Your task to perform on an android device: add a contact in the contacts app Image 0: 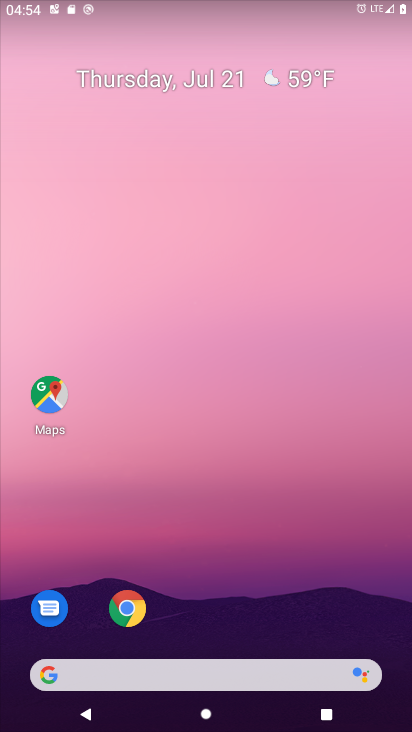
Step 0: drag from (287, 661) to (294, 108)
Your task to perform on an android device: add a contact in the contacts app Image 1: 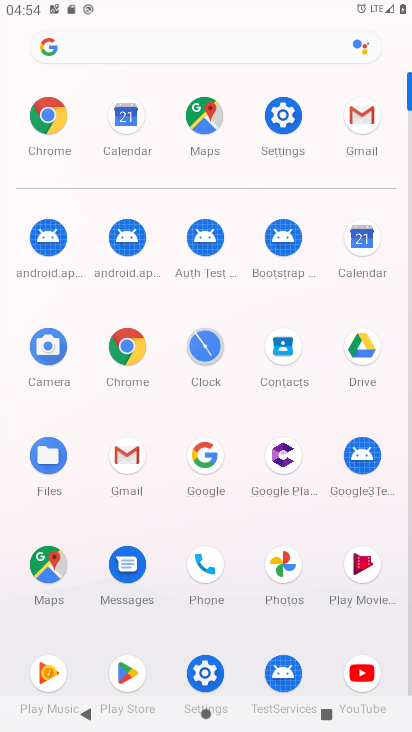
Step 1: click (269, 358)
Your task to perform on an android device: add a contact in the contacts app Image 2: 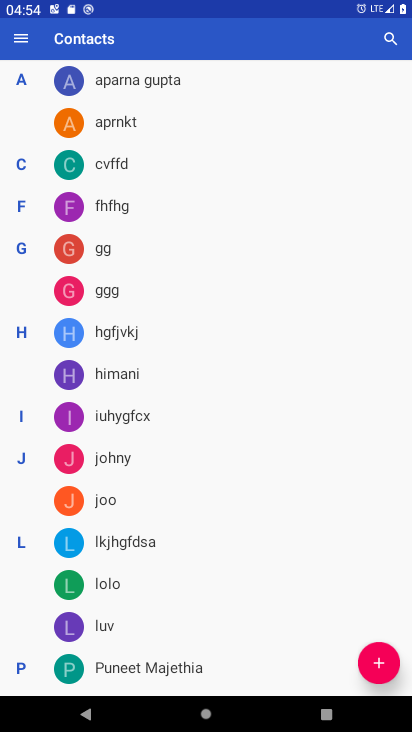
Step 2: click (380, 651)
Your task to perform on an android device: add a contact in the contacts app Image 3: 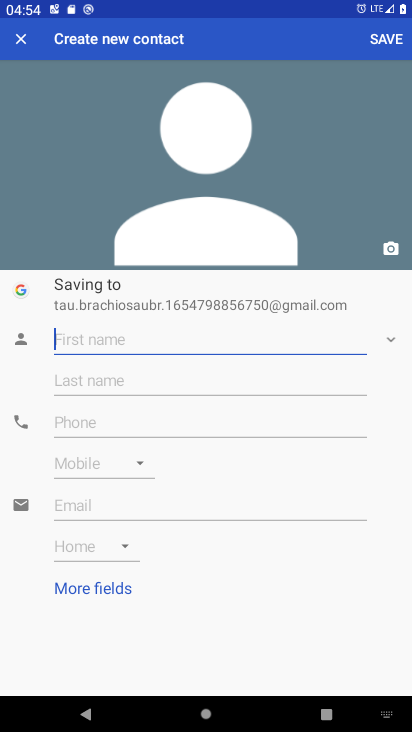
Step 3: type "anuj"
Your task to perform on an android device: add a contact in the contacts app Image 4: 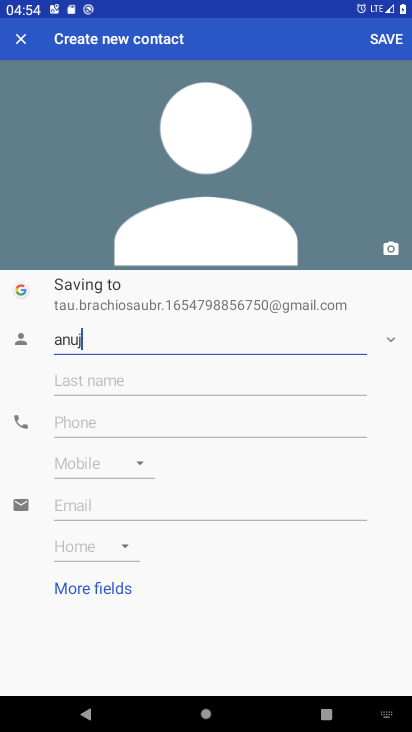
Step 4: click (181, 418)
Your task to perform on an android device: add a contact in the contacts app Image 5: 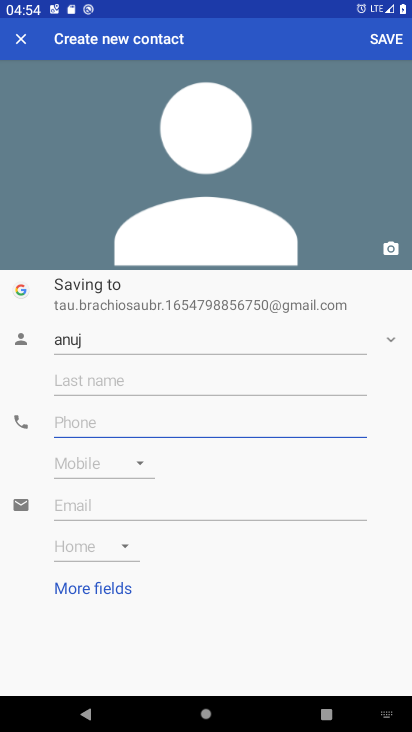
Step 5: type "9087688767"
Your task to perform on an android device: add a contact in the contacts app Image 6: 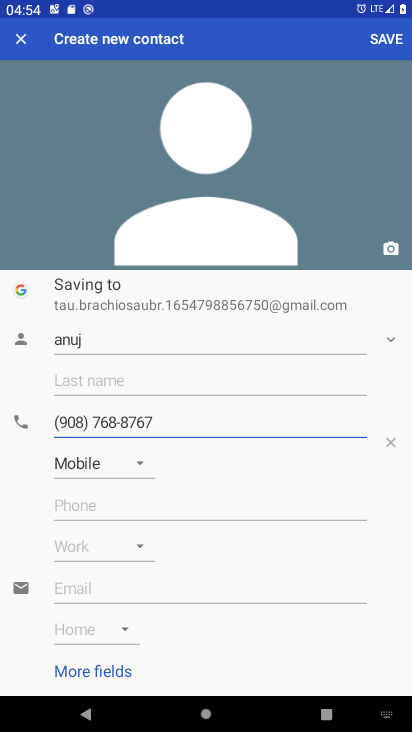
Step 6: click (389, 38)
Your task to perform on an android device: add a contact in the contacts app Image 7: 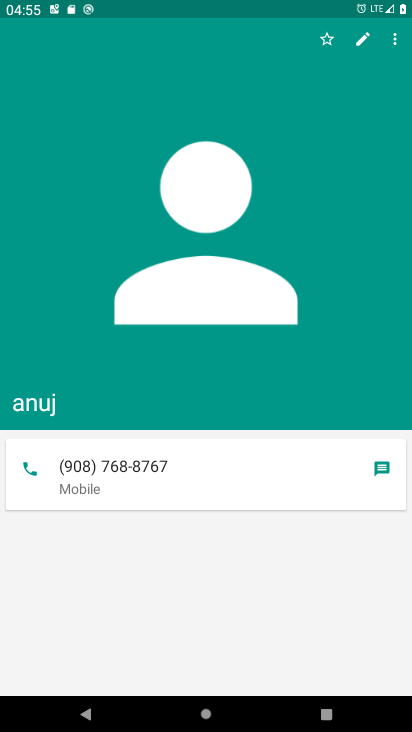
Step 7: task complete